Your task to perform on an android device: Go to Google Image 0: 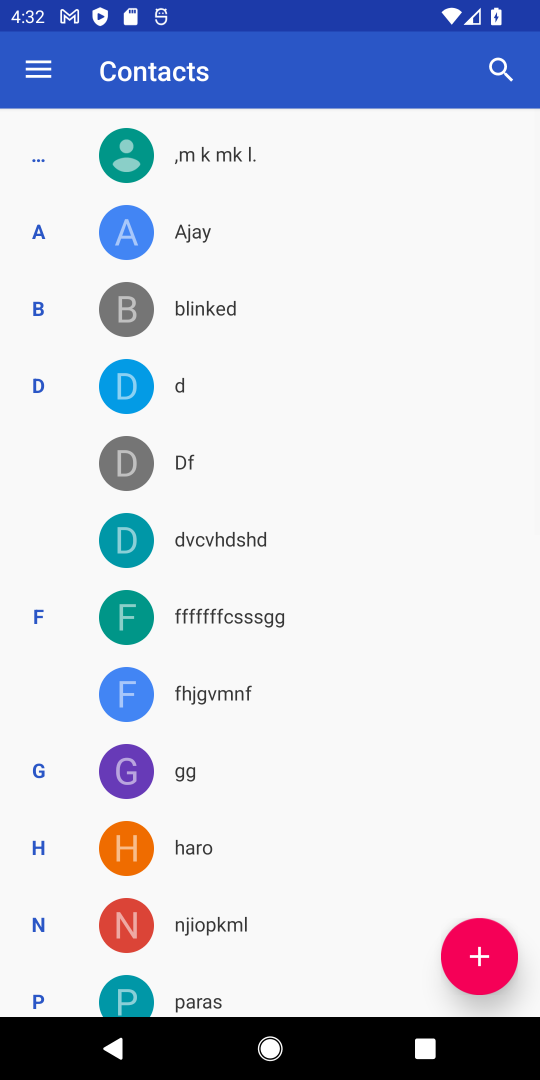
Step 0: press back button
Your task to perform on an android device: Go to Google Image 1: 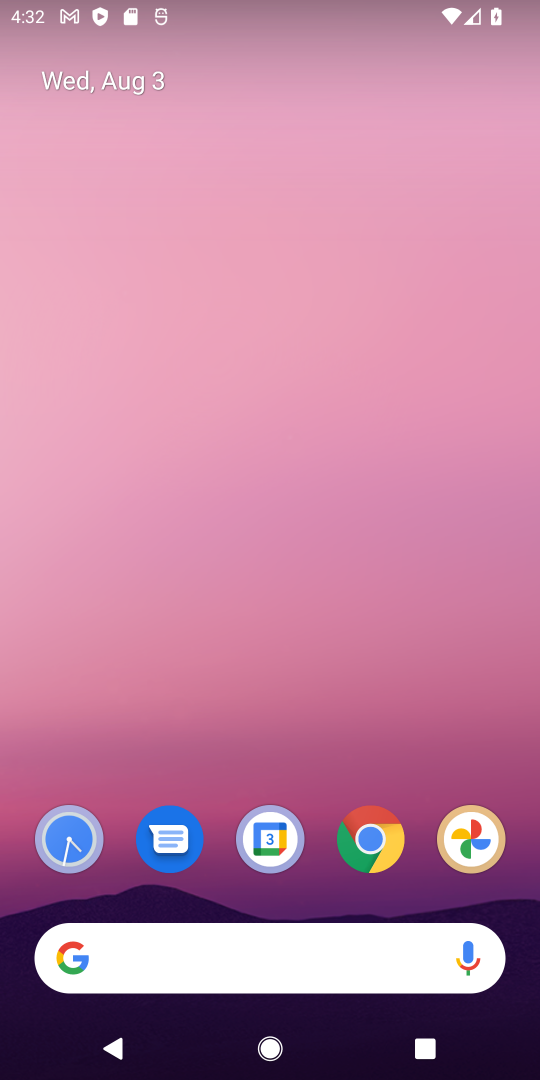
Step 1: drag from (166, 754) to (328, 8)
Your task to perform on an android device: Go to Google Image 2: 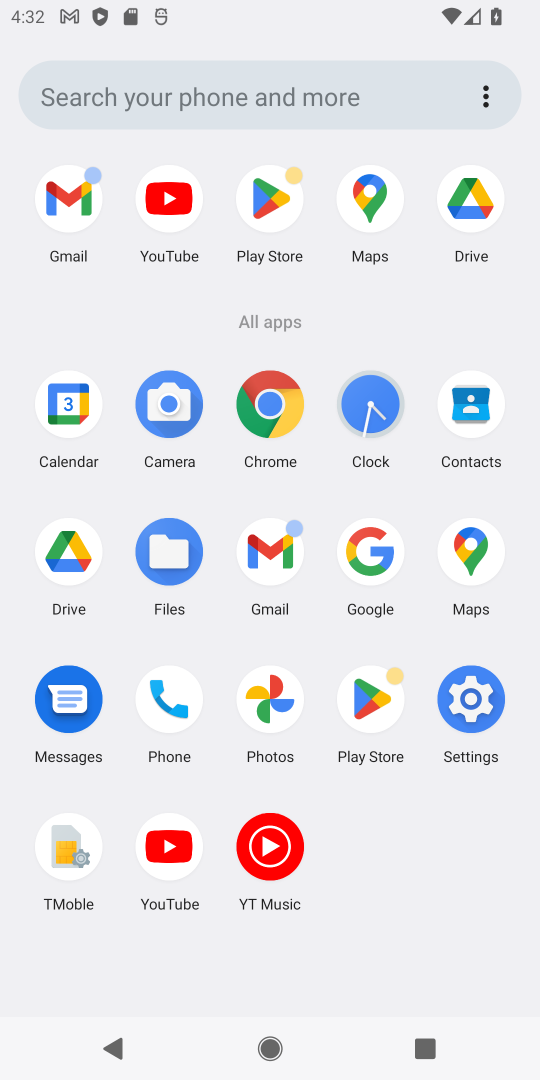
Step 2: click (369, 562)
Your task to perform on an android device: Go to Google Image 3: 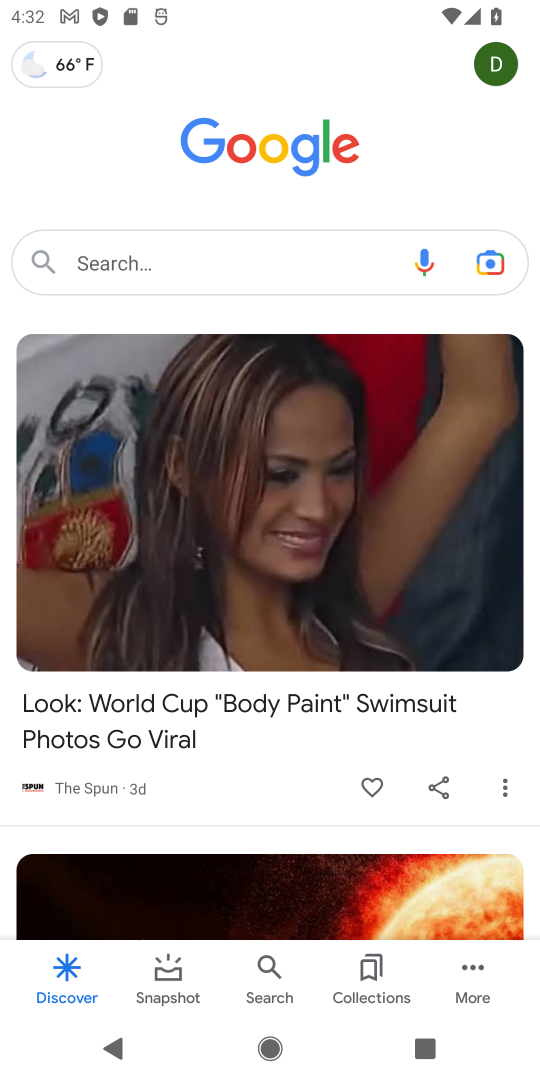
Step 3: task complete